Your task to perform on an android device: open a new tab in the chrome app Image 0: 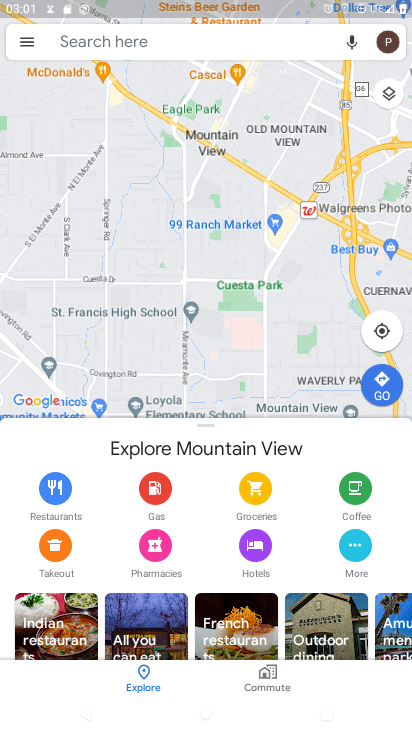
Step 0: press home button
Your task to perform on an android device: open a new tab in the chrome app Image 1: 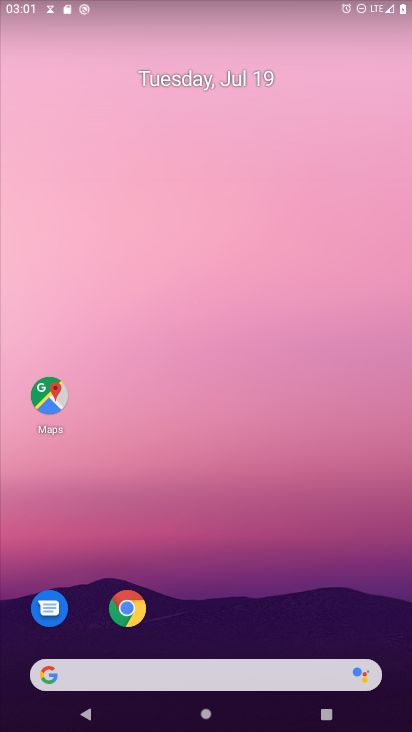
Step 1: drag from (289, 667) to (256, 0)
Your task to perform on an android device: open a new tab in the chrome app Image 2: 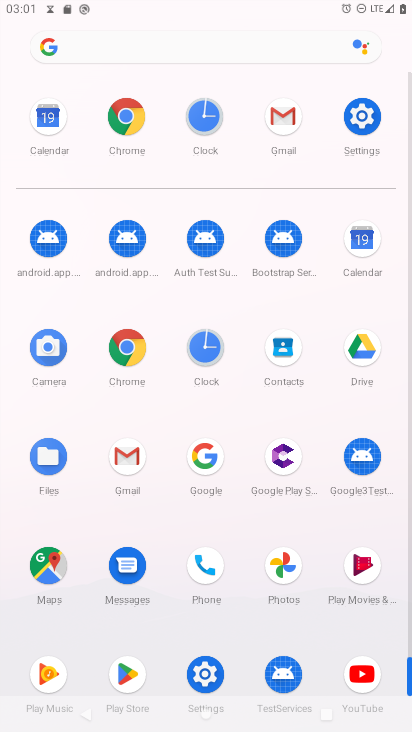
Step 2: click (115, 346)
Your task to perform on an android device: open a new tab in the chrome app Image 3: 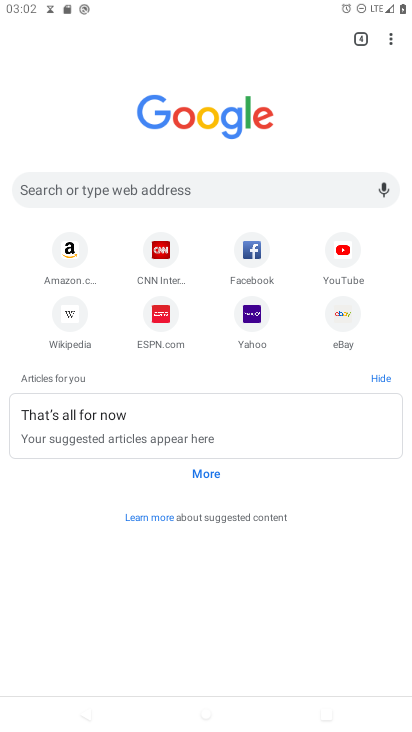
Step 3: drag from (387, 39) to (355, 73)
Your task to perform on an android device: open a new tab in the chrome app Image 4: 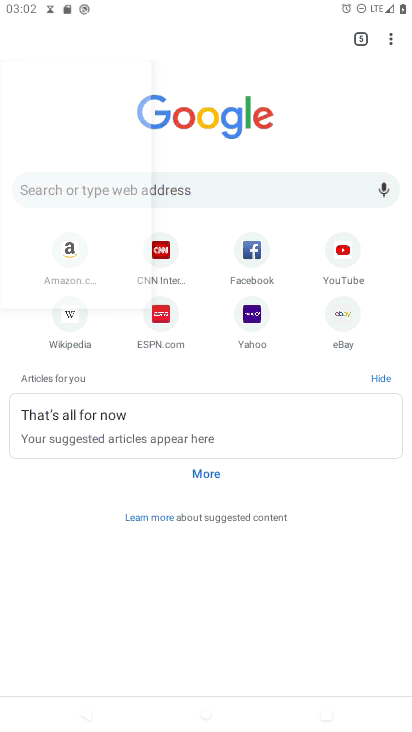
Step 4: click (345, 78)
Your task to perform on an android device: open a new tab in the chrome app Image 5: 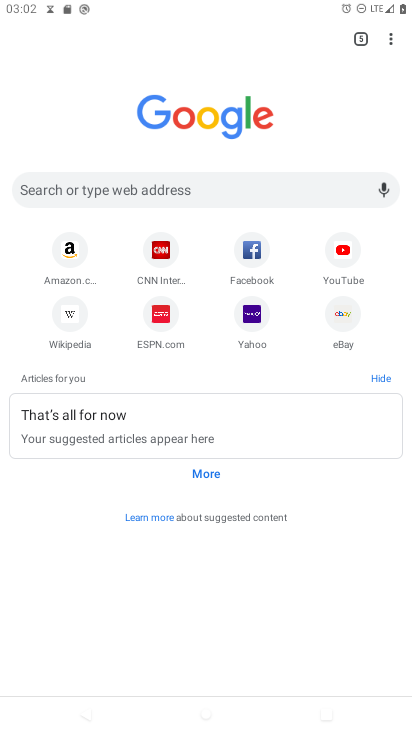
Step 5: task complete